Your task to perform on an android device: turn on the 24-hour format for clock Image 0: 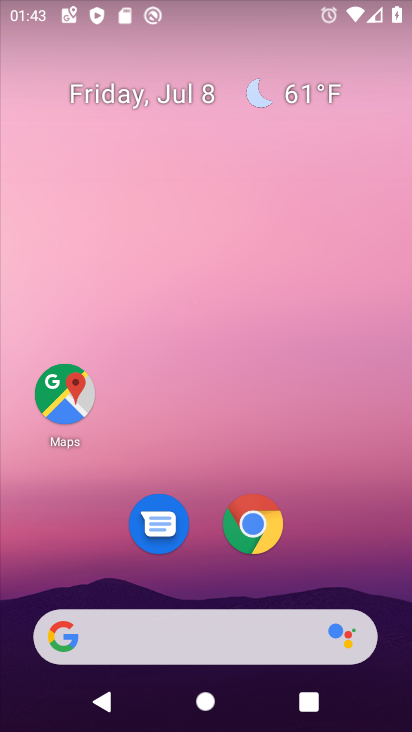
Step 0: drag from (214, 468) to (184, 68)
Your task to perform on an android device: turn on the 24-hour format for clock Image 1: 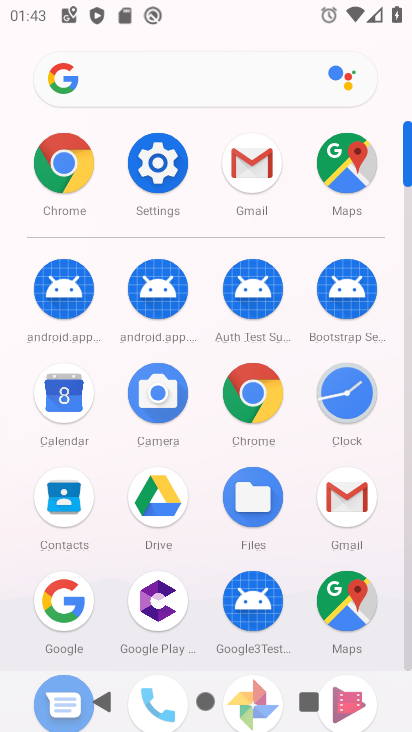
Step 1: click (337, 395)
Your task to perform on an android device: turn on the 24-hour format for clock Image 2: 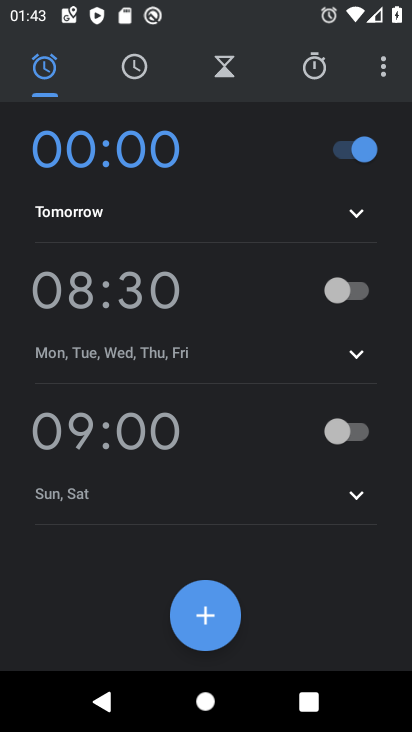
Step 2: click (378, 67)
Your task to perform on an android device: turn on the 24-hour format for clock Image 3: 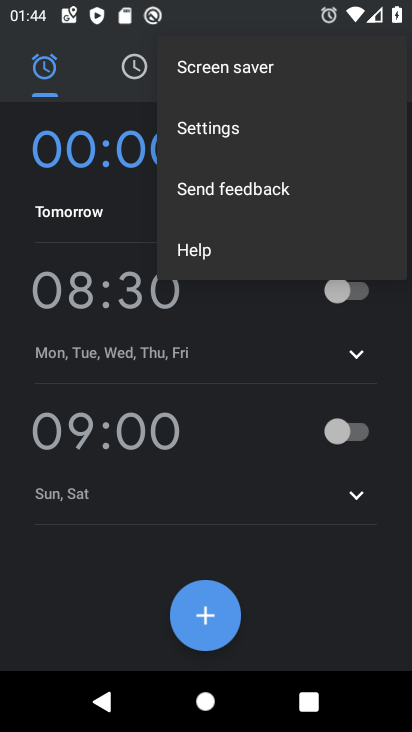
Step 3: click (261, 134)
Your task to perform on an android device: turn on the 24-hour format for clock Image 4: 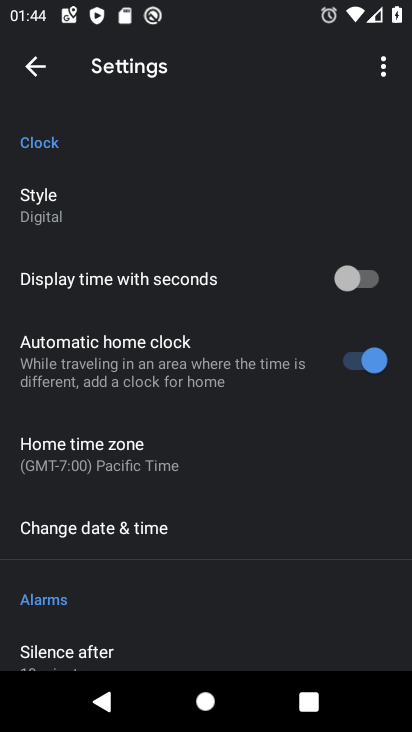
Step 4: click (199, 532)
Your task to perform on an android device: turn on the 24-hour format for clock Image 5: 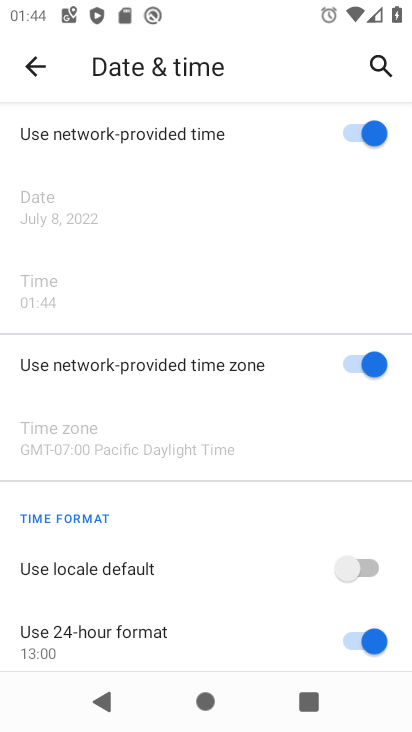
Step 5: task complete